Your task to perform on an android device: Go to Wikipedia Image 0: 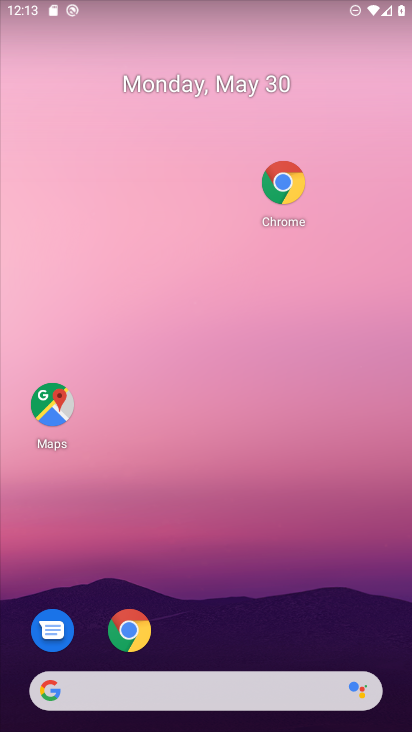
Step 0: drag from (255, 607) to (112, 141)
Your task to perform on an android device: Go to Wikipedia Image 1: 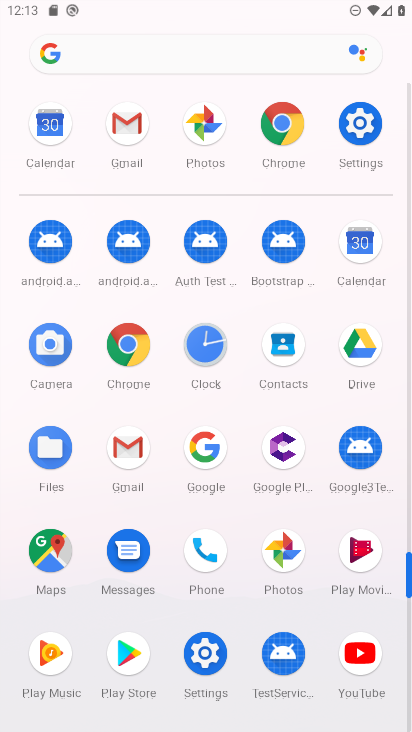
Step 1: click (276, 130)
Your task to perform on an android device: Go to Wikipedia Image 2: 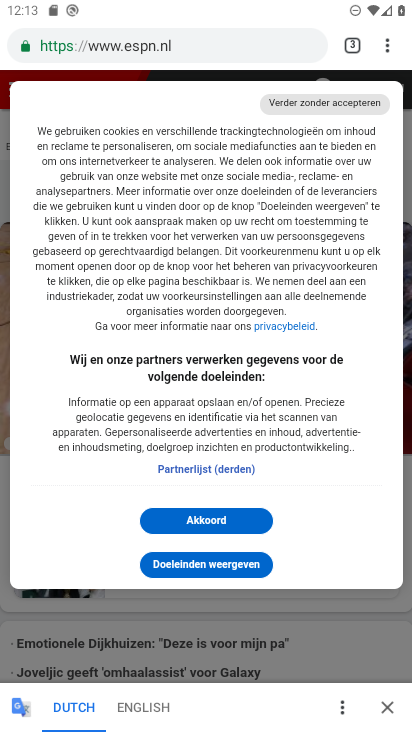
Step 2: drag from (387, 55) to (216, 98)
Your task to perform on an android device: Go to Wikipedia Image 3: 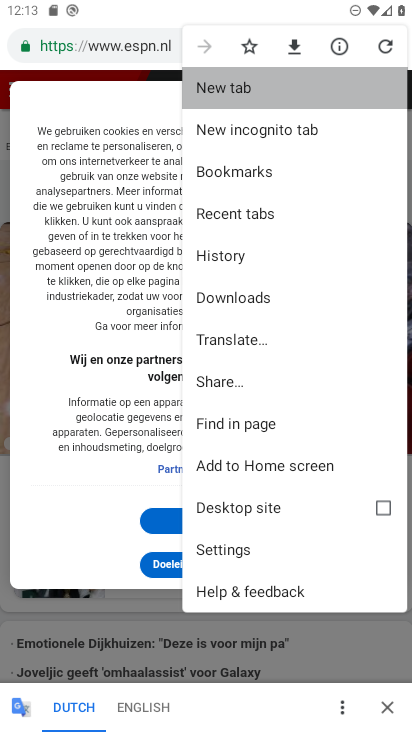
Step 3: click (213, 105)
Your task to perform on an android device: Go to Wikipedia Image 4: 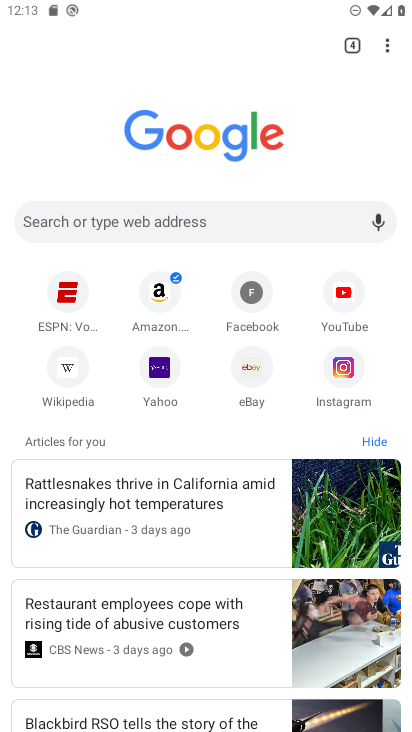
Step 4: click (68, 369)
Your task to perform on an android device: Go to Wikipedia Image 5: 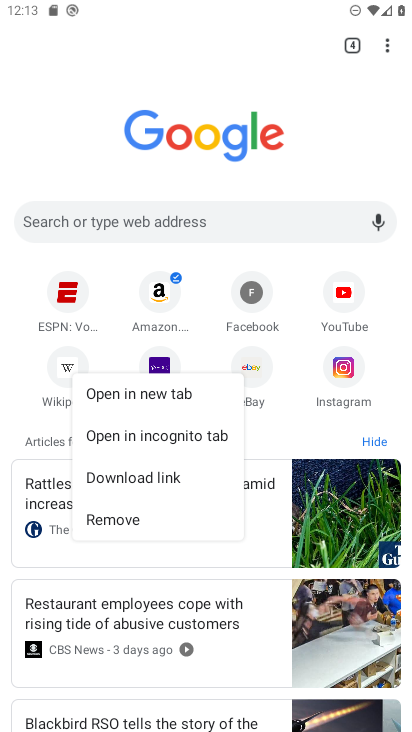
Step 5: click (68, 369)
Your task to perform on an android device: Go to Wikipedia Image 6: 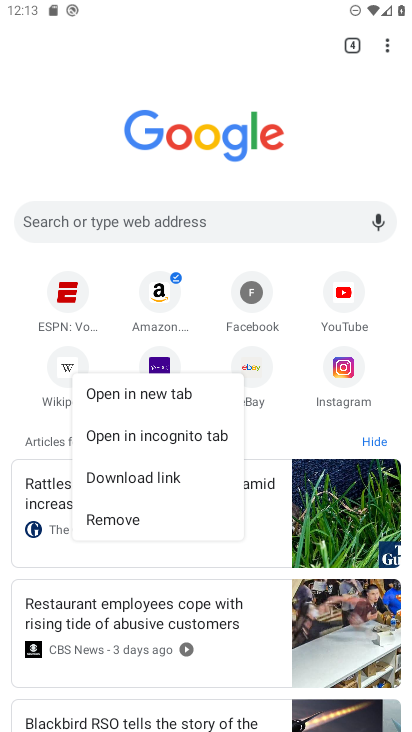
Step 6: click (108, 385)
Your task to perform on an android device: Go to Wikipedia Image 7: 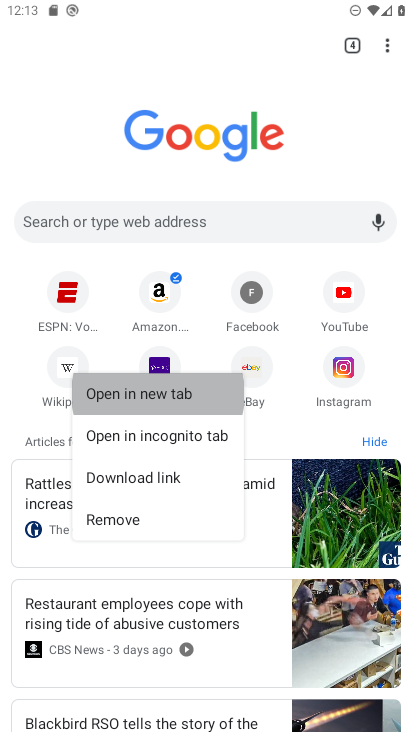
Step 7: click (110, 389)
Your task to perform on an android device: Go to Wikipedia Image 8: 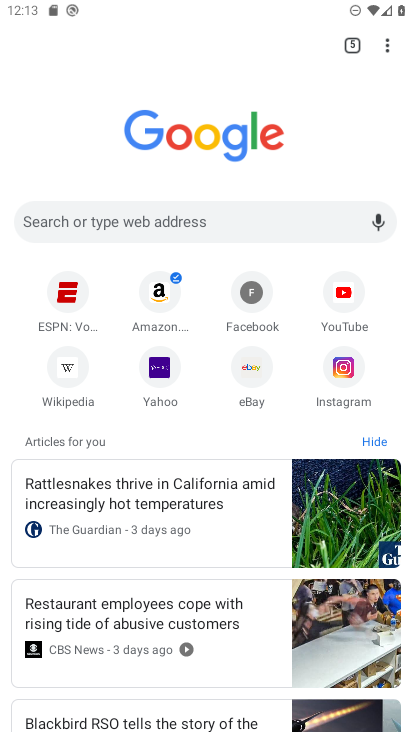
Step 8: click (70, 376)
Your task to perform on an android device: Go to Wikipedia Image 9: 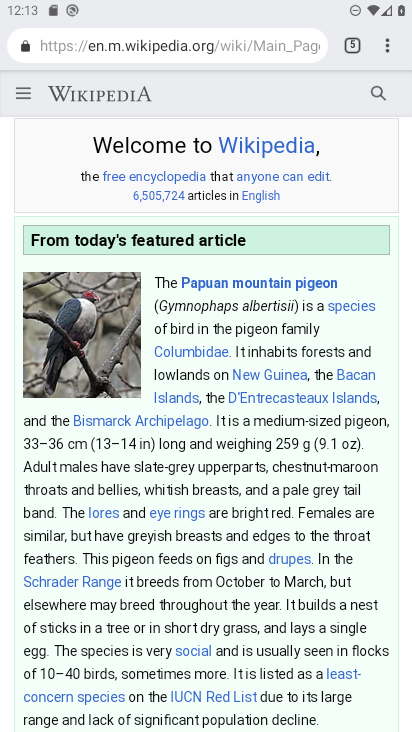
Step 9: task complete